Your task to perform on an android device: Open Chrome and go to settings Image 0: 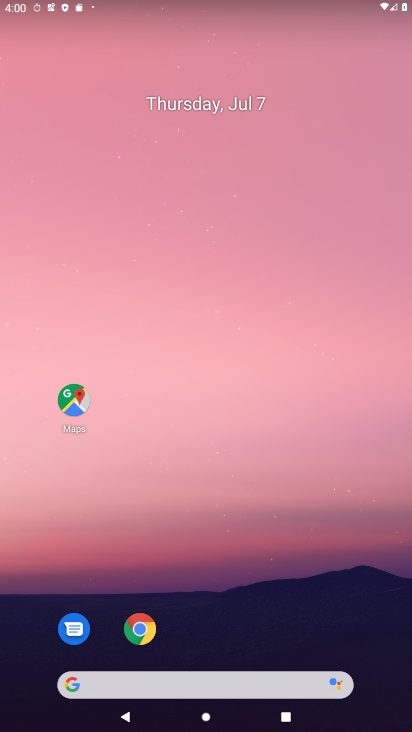
Step 0: drag from (196, 520) to (269, 39)
Your task to perform on an android device: Open Chrome and go to settings Image 1: 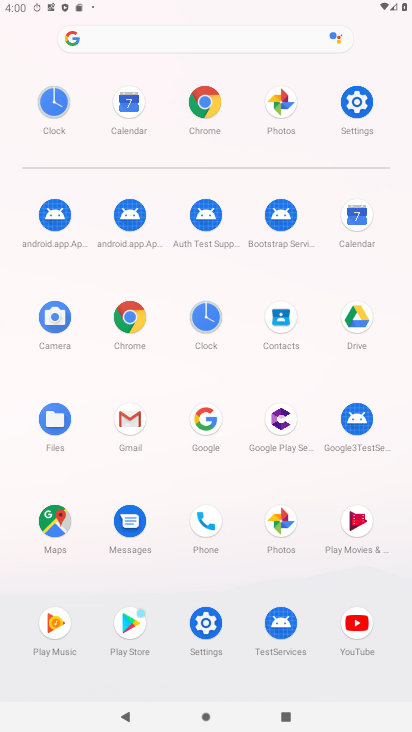
Step 1: click (208, 107)
Your task to perform on an android device: Open Chrome and go to settings Image 2: 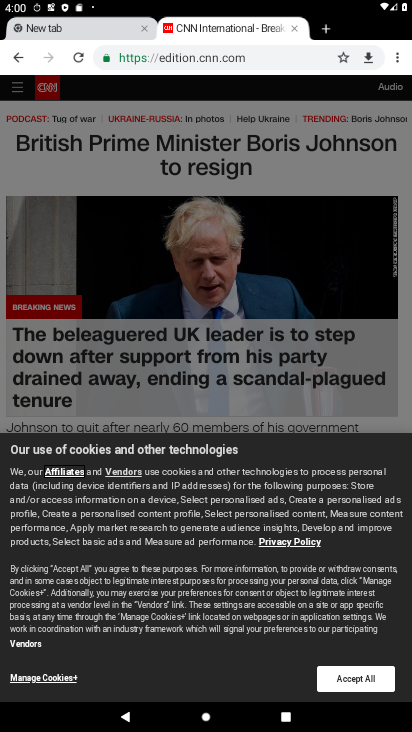
Step 2: click (399, 56)
Your task to perform on an android device: Open Chrome and go to settings Image 3: 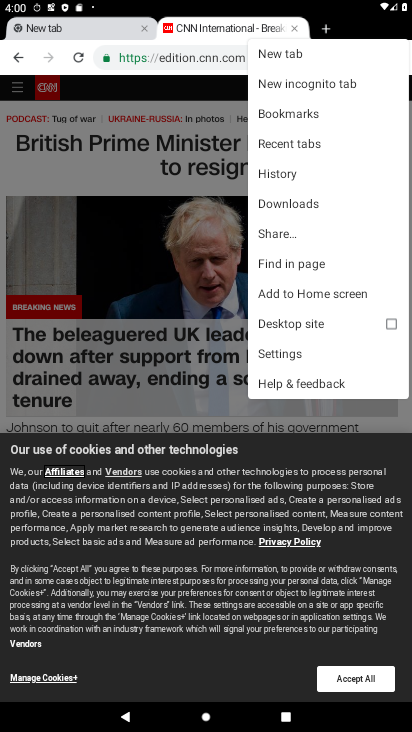
Step 3: click (310, 354)
Your task to perform on an android device: Open Chrome and go to settings Image 4: 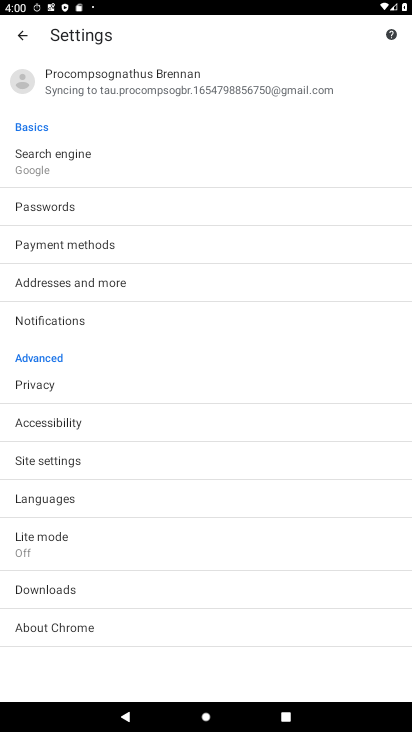
Step 4: task complete